Your task to perform on an android device: read, delete, or share a saved page in the chrome app Image 0: 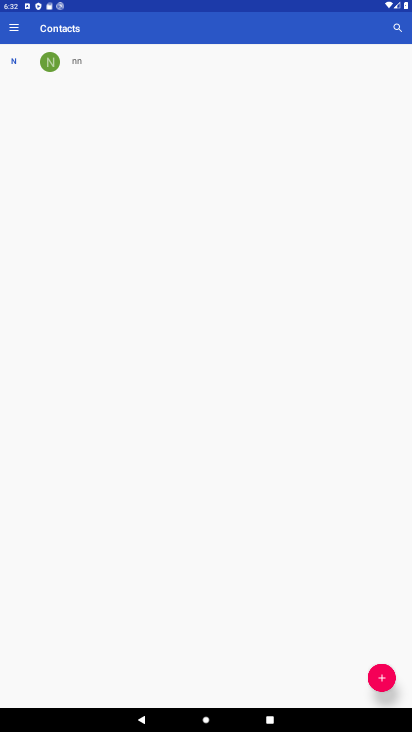
Step 0: press home button
Your task to perform on an android device: read, delete, or share a saved page in the chrome app Image 1: 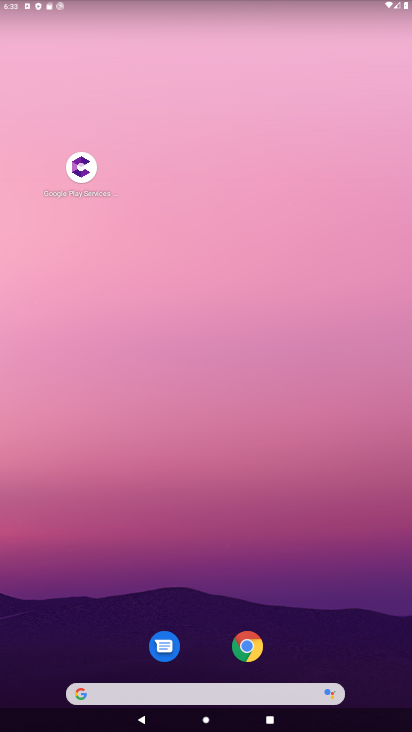
Step 1: drag from (388, 634) to (117, 21)
Your task to perform on an android device: read, delete, or share a saved page in the chrome app Image 2: 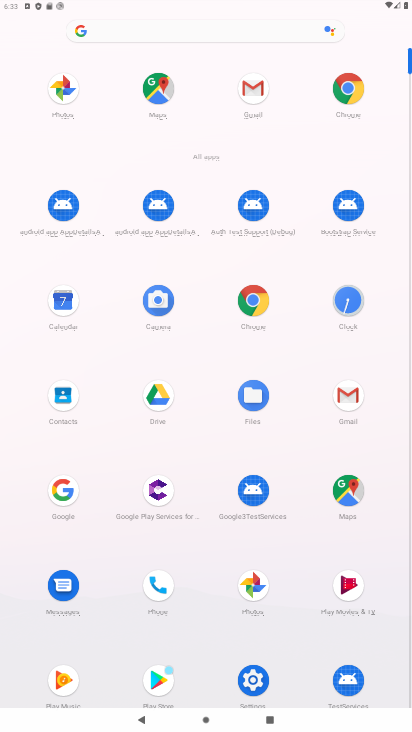
Step 2: click (341, 83)
Your task to perform on an android device: read, delete, or share a saved page in the chrome app Image 3: 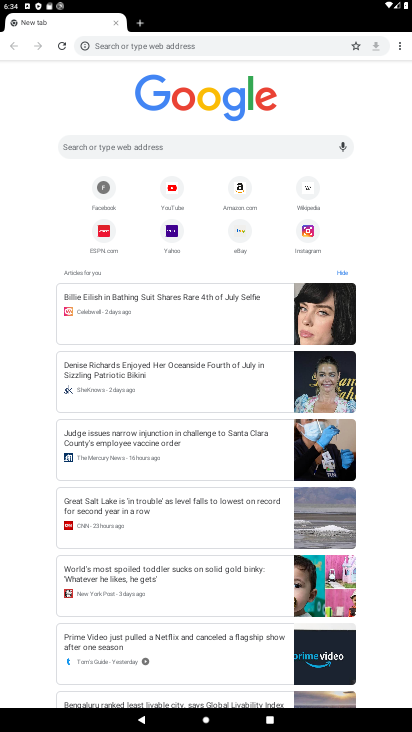
Step 3: task complete